Your task to perform on an android device: add a contact in the contacts app Image 0: 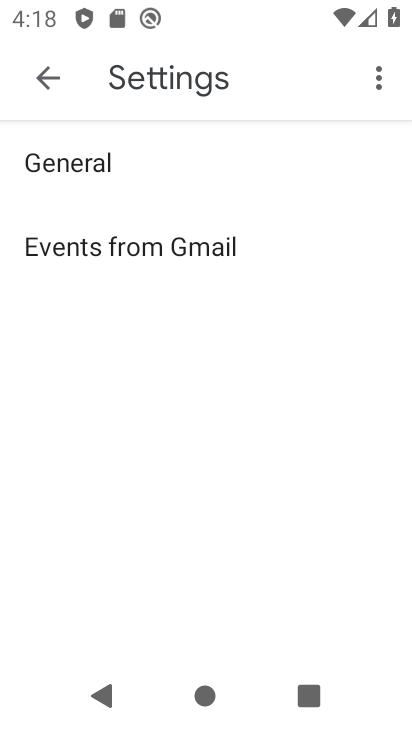
Step 0: press home button
Your task to perform on an android device: add a contact in the contacts app Image 1: 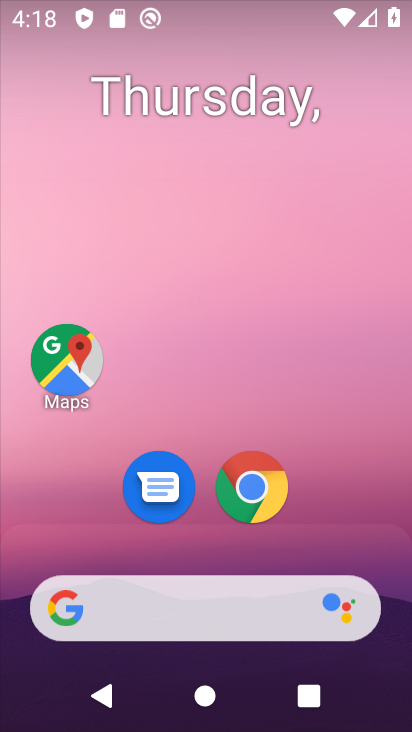
Step 1: drag from (155, 540) to (284, 66)
Your task to perform on an android device: add a contact in the contacts app Image 2: 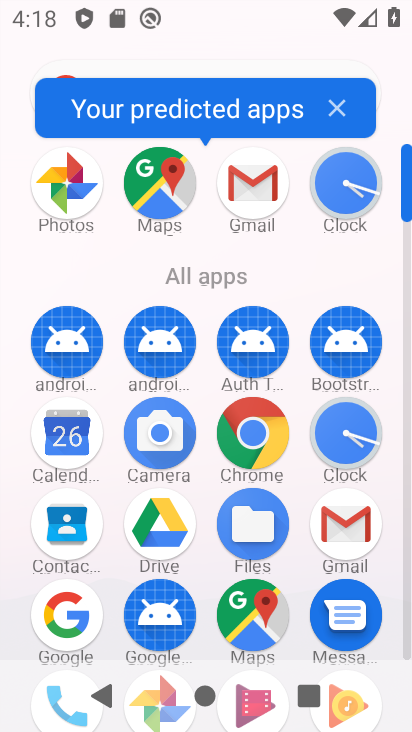
Step 2: click (63, 536)
Your task to perform on an android device: add a contact in the contacts app Image 3: 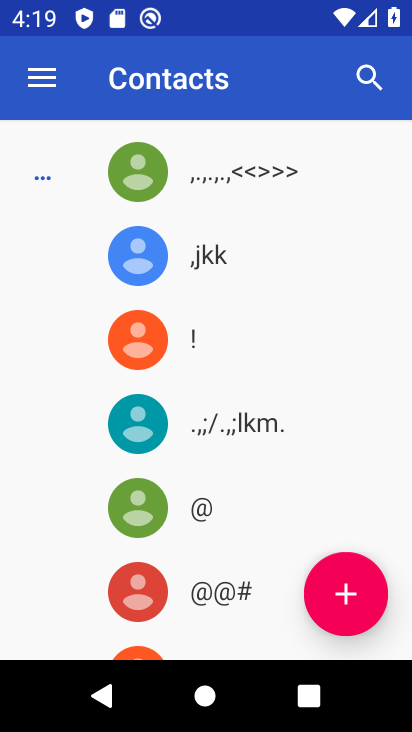
Step 3: click (349, 600)
Your task to perform on an android device: add a contact in the contacts app Image 4: 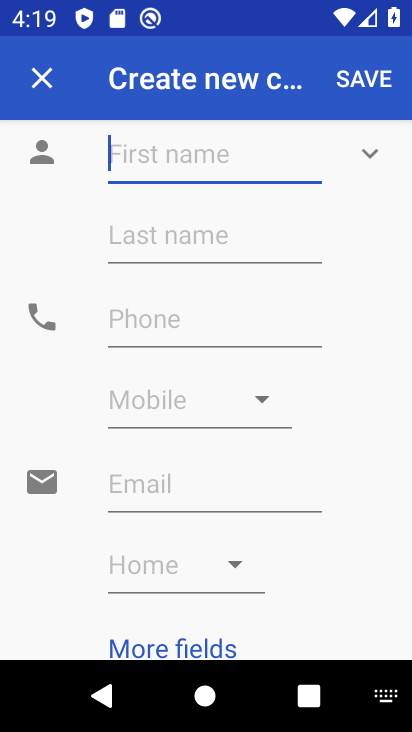
Step 4: type "jikki"
Your task to perform on an android device: add a contact in the contacts app Image 5: 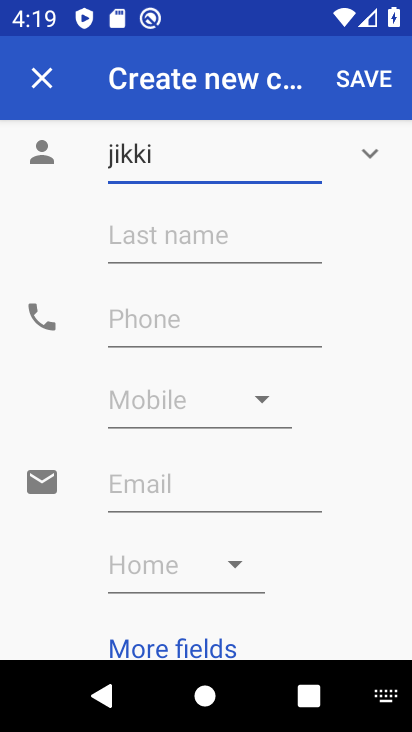
Step 5: click (160, 320)
Your task to perform on an android device: add a contact in the contacts app Image 6: 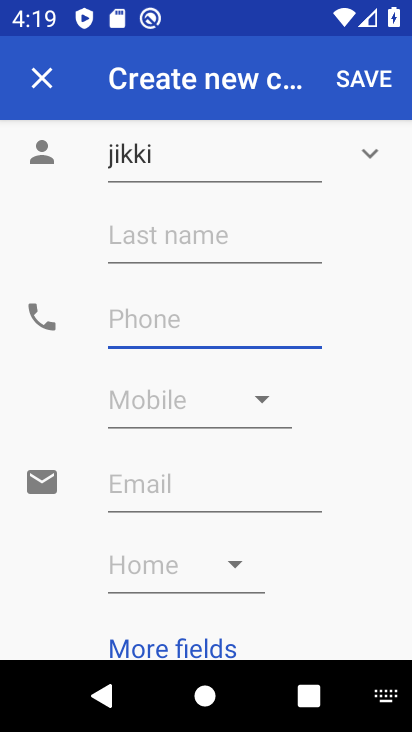
Step 6: type "98999899"
Your task to perform on an android device: add a contact in the contacts app Image 7: 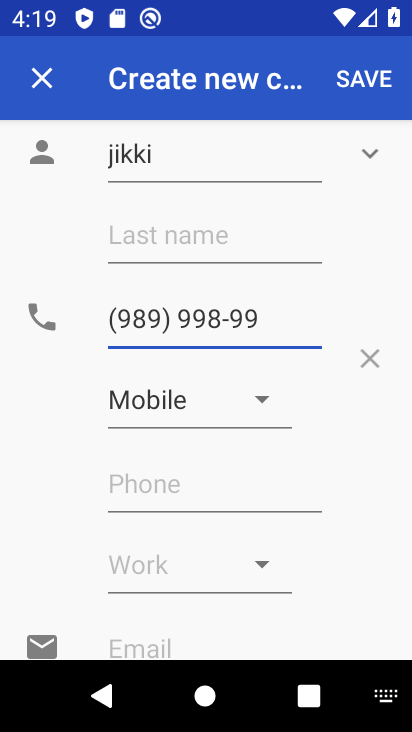
Step 7: click (380, 60)
Your task to perform on an android device: add a contact in the contacts app Image 8: 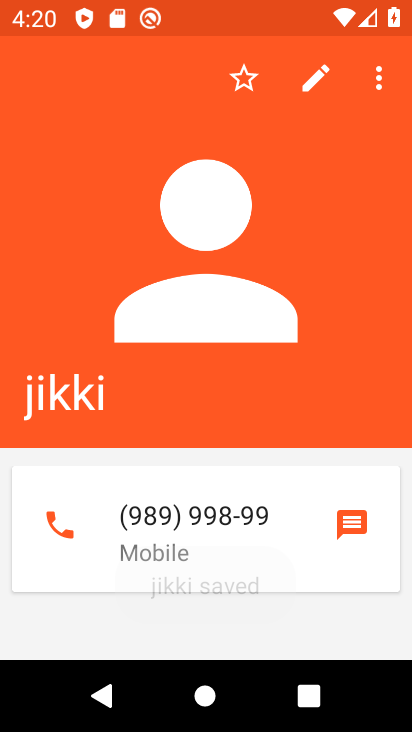
Step 8: task complete